Your task to perform on an android device: Open location settings Image 0: 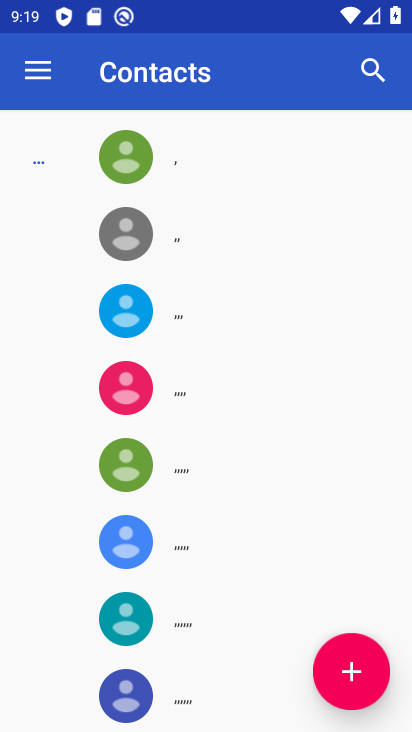
Step 0: press home button
Your task to perform on an android device: Open location settings Image 1: 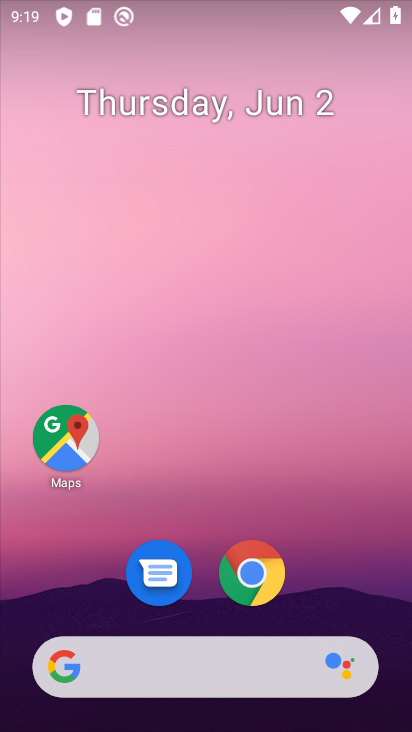
Step 1: drag from (326, 547) to (308, 198)
Your task to perform on an android device: Open location settings Image 2: 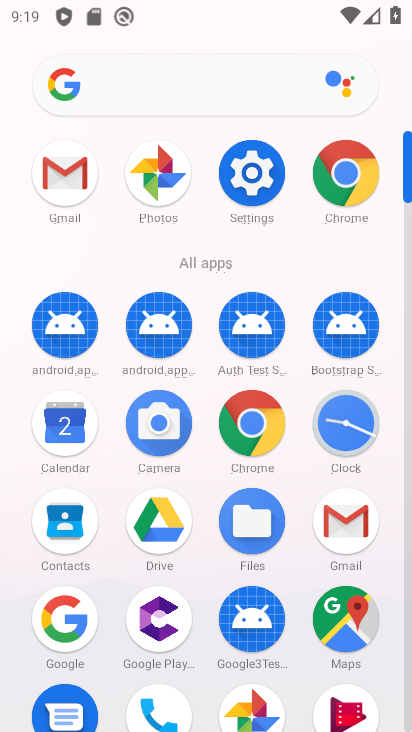
Step 2: click (262, 181)
Your task to perform on an android device: Open location settings Image 3: 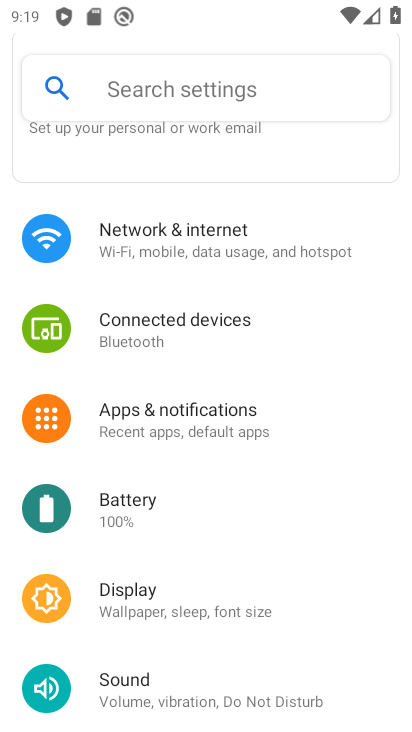
Step 3: drag from (268, 562) to (311, 127)
Your task to perform on an android device: Open location settings Image 4: 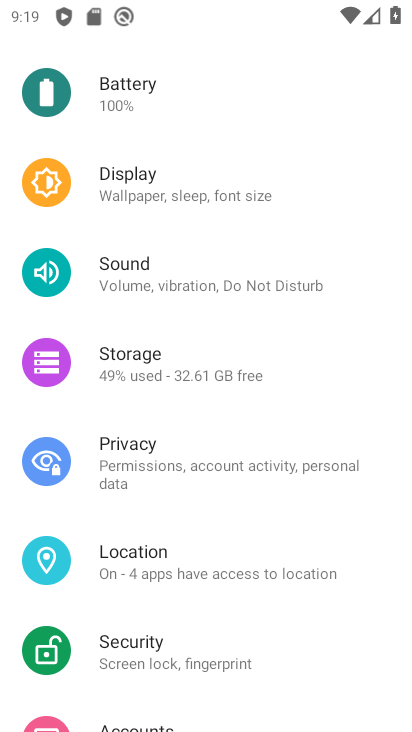
Step 4: click (168, 573)
Your task to perform on an android device: Open location settings Image 5: 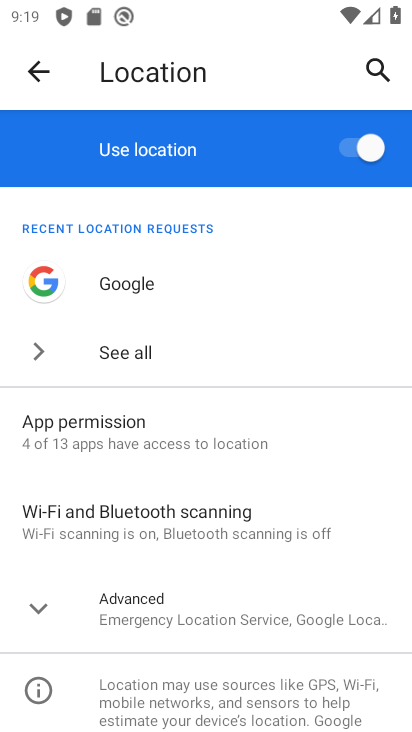
Step 5: drag from (245, 585) to (259, 318)
Your task to perform on an android device: Open location settings Image 6: 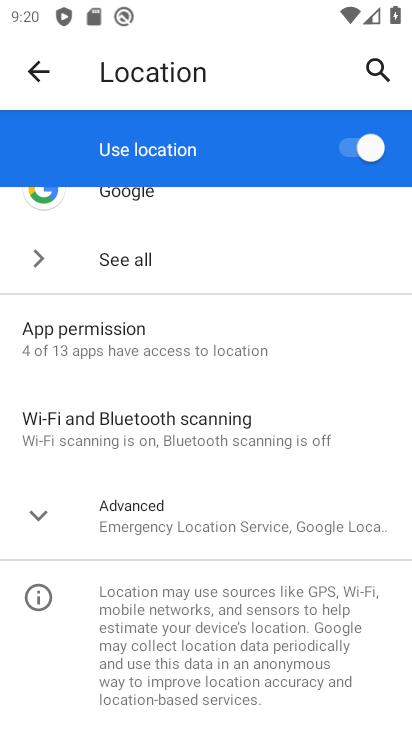
Step 6: press home button
Your task to perform on an android device: Open location settings Image 7: 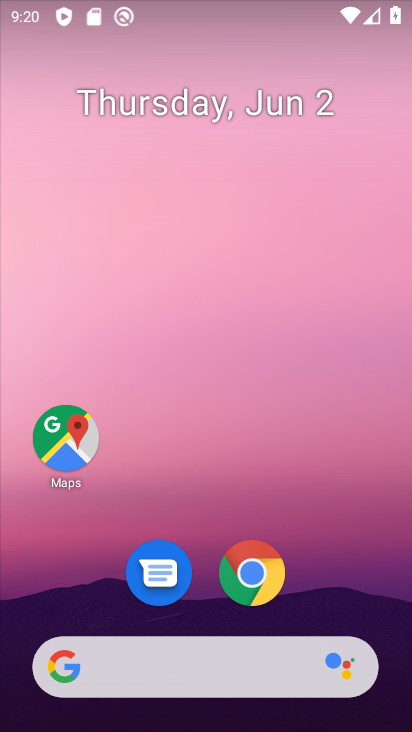
Step 7: drag from (369, 573) to (236, 140)
Your task to perform on an android device: Open location settings Image 8: 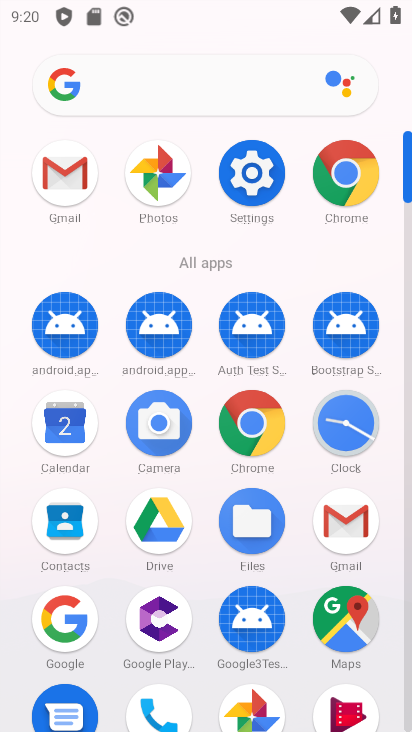
Step 8: click (245, 192)
Your task to perform on an android device: Open location settings Image 9: 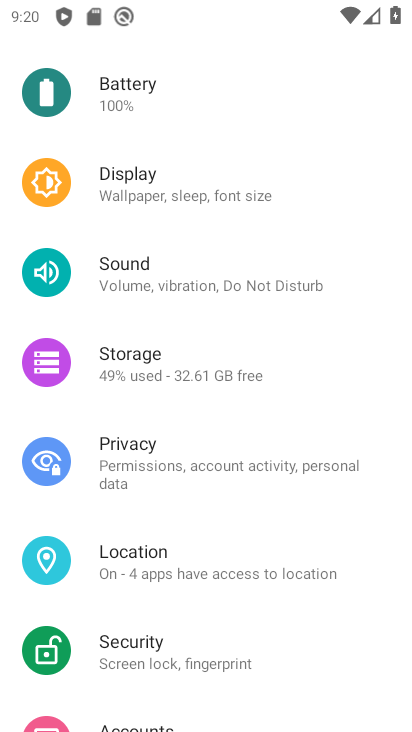
Step 9: drag from (188, 178) to (197, 121)
Your task to perform on an android device: Open location settings Image 10: 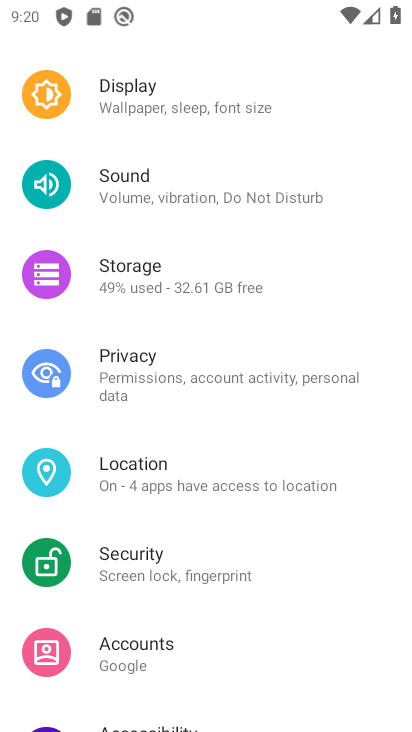
Step 10: click (150, 479)
Your task to perform on an android device: Open location settings Image 11: 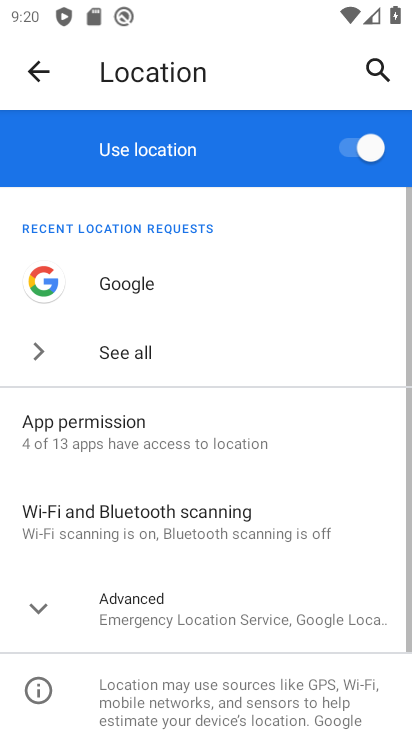
Step 11: task complete